Your task to perform on an android device: find which apps use the phone's location Image 0: 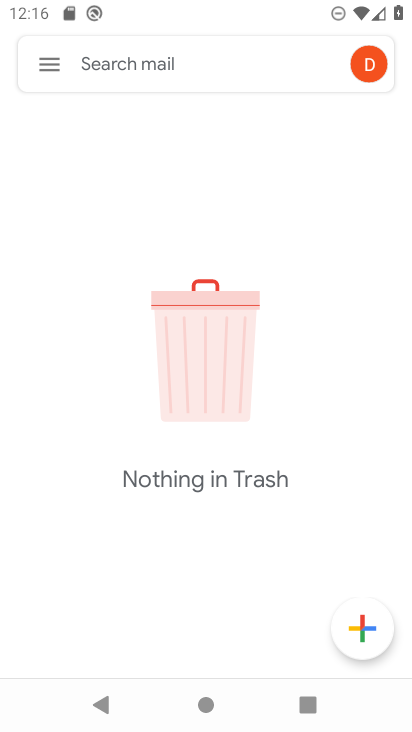
Step 0: press home button
Your task to perform on an android device: find which apps use the phone's location Image 1: 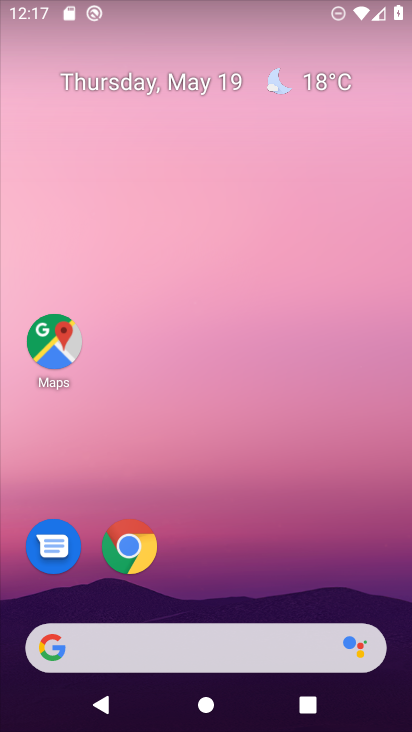
Step 1: drag from (213, 705) to (212, 383)
Your task to perform on an android device: find which apps use the phone's location Image 2: 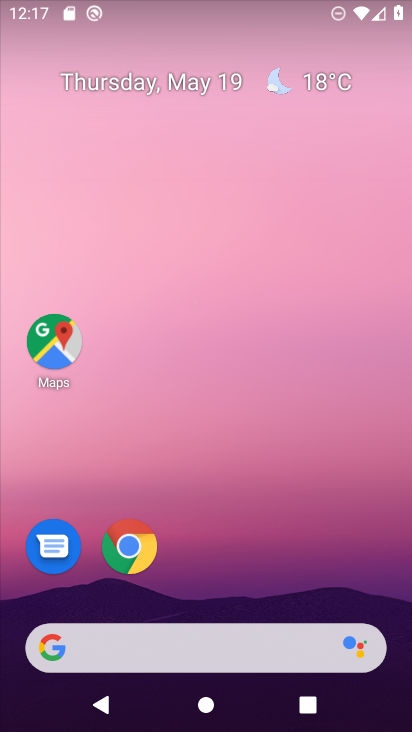
Step 2: drag from (244, 729) to (244, 188)
Your task to perform on an android device: find which apps use the phone's location Image 3: 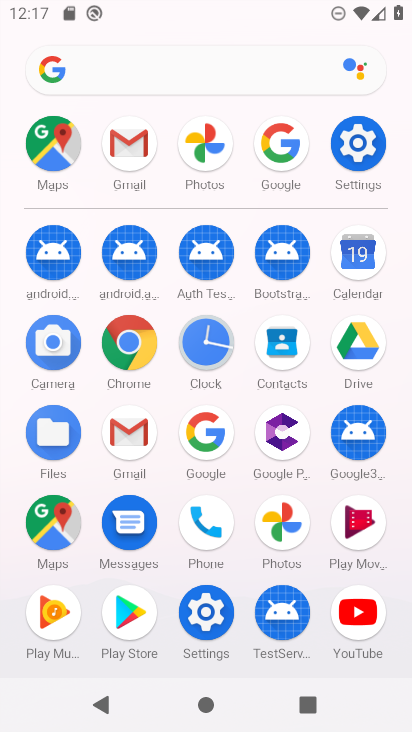
Step 3: click (203, 611)
Your task to perform on an android device: find which apps use the phone's location Image 4: 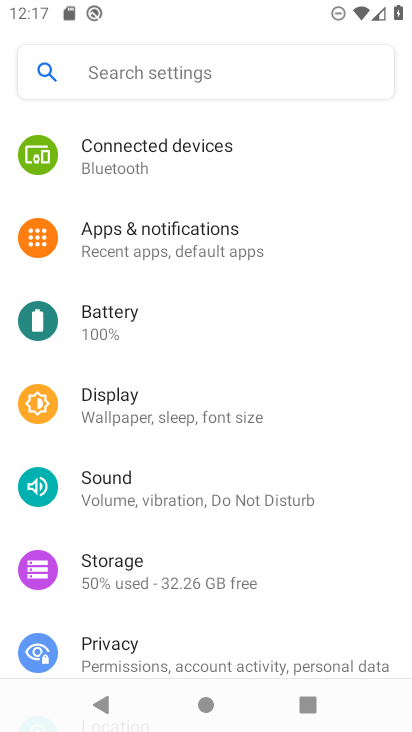
Step 4: drag from (183, 647) to (190, 351)
Your task to perform on an android device: find which apps use the phone's location Image 5: 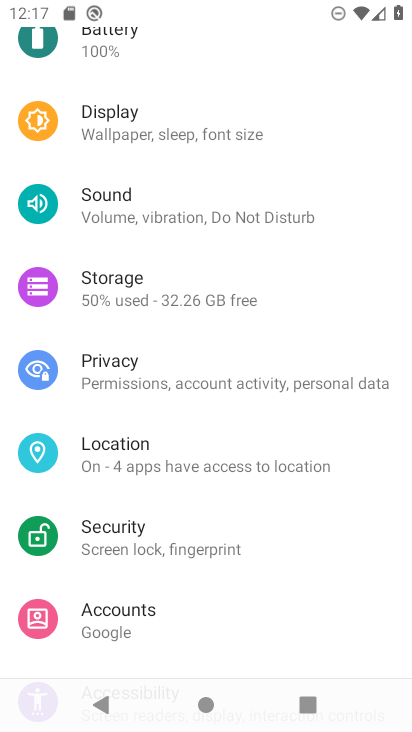
Step 5: click (121, 457)
Your task to perform on an android device: find which apps use the phone's location Image 6: 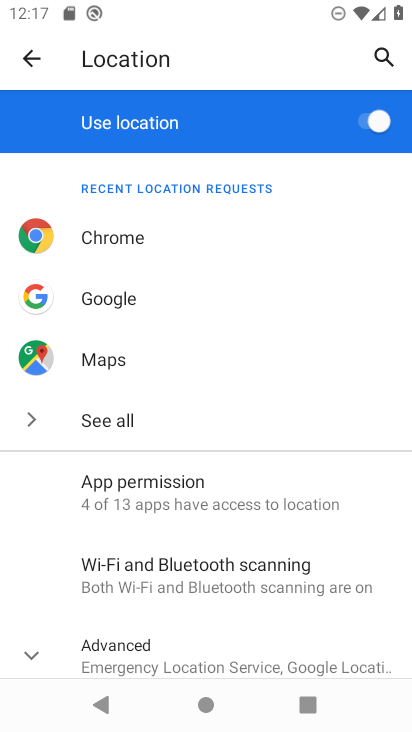
Step 6: click (144, 492)
Your task to perform on an android device: find which apps use the phone's location Image 7: 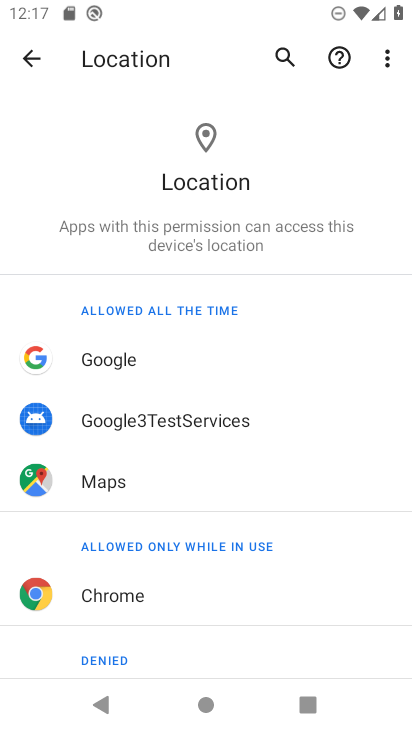
Step 7: task complete